Your task to perform on an android device: Open accessibility settings Image 0: 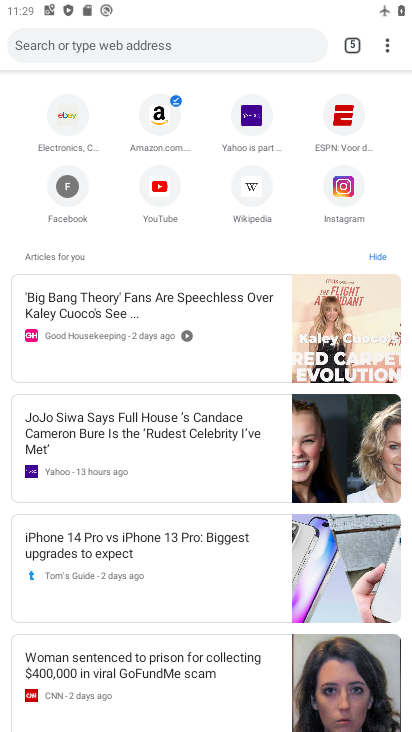
Step 0: press back button
Your task to perform on an android device: Open accessibility settings Image 1: 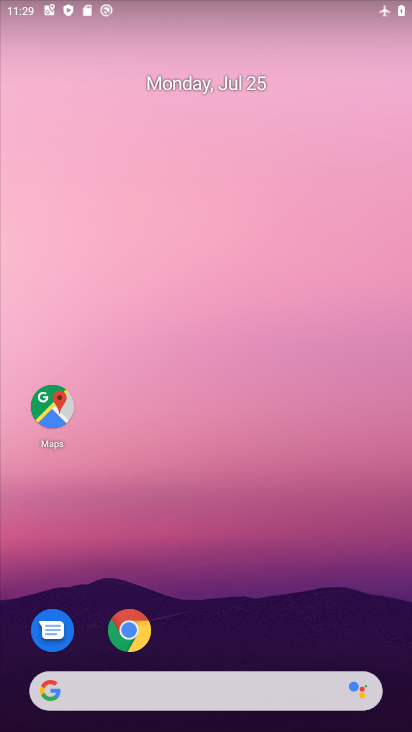
Step 1: drag from (215, 442) to (204, 237)
Your task to perform on an android device: Open accessibility settings Image 2: 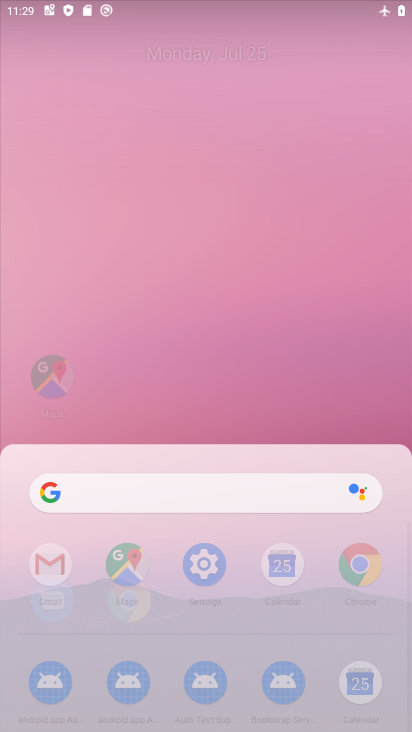
Step 2: click (223, 258)
Your task to perform on an android device: Open accessibility settings Image 3: 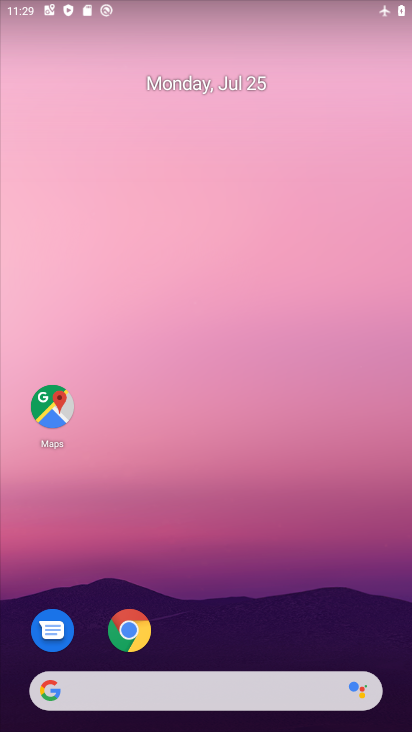
Step 3: drag from (222, 523) to (199, 119)
Your task to perform on an android device: Open accessibility settings Image 4: 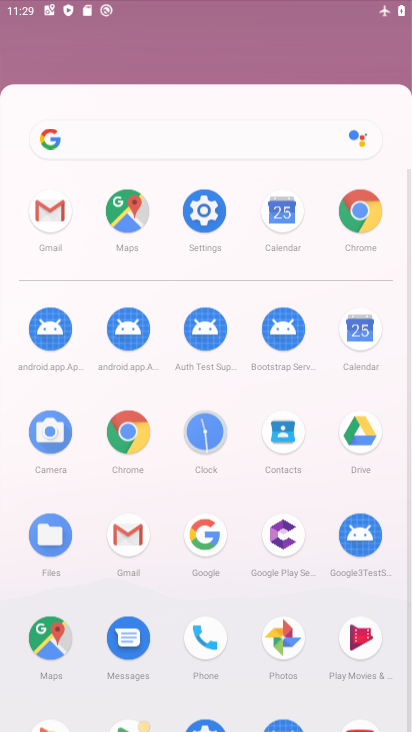
Step 4: drag from (209, 281) to (212, 204)
Your task to perform on an android device: Open accessibility settings Image 5: 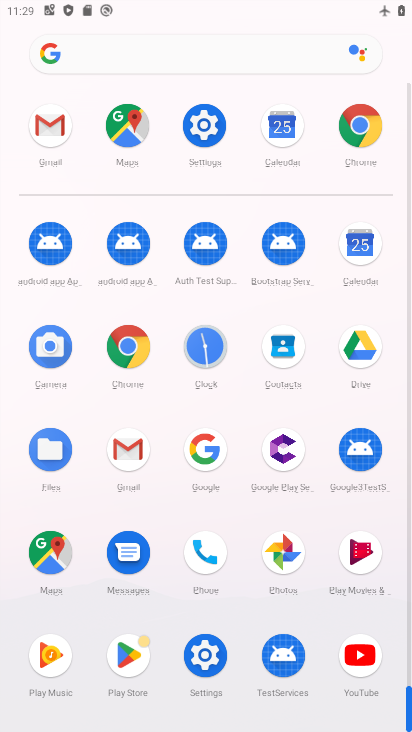
Step 5: drag from (217, 580) to (269, 353)
Your task to perform on an android device: Open accessibility settings Image 6: 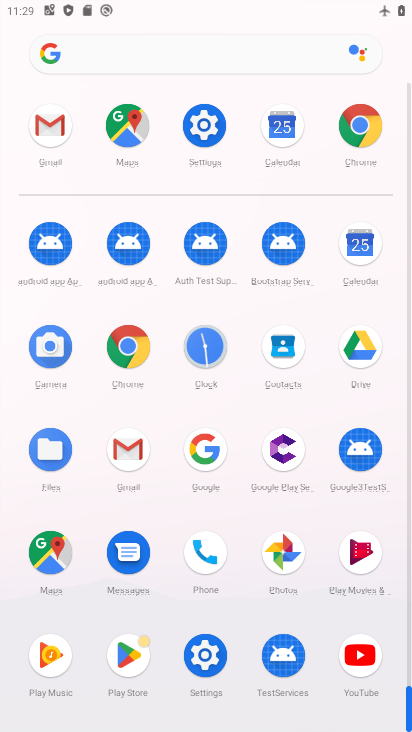
Step 6: click (199, 145)
Your task to perform on an android device: Open accessibility settings Image 7: 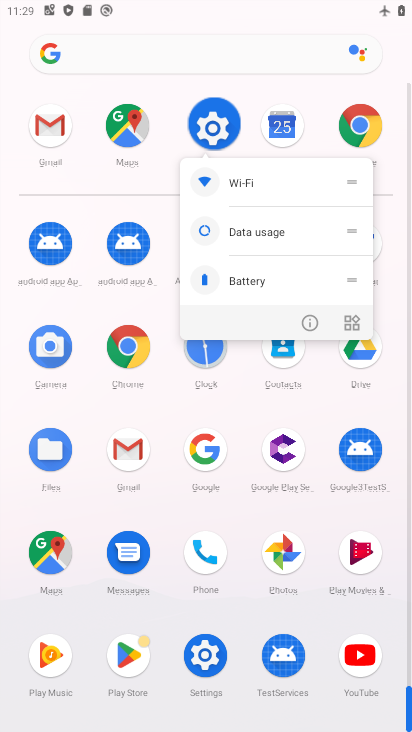
Step 7: click (208, 143)
Your task to perform on an android device: Open accessibility settings Image 8: 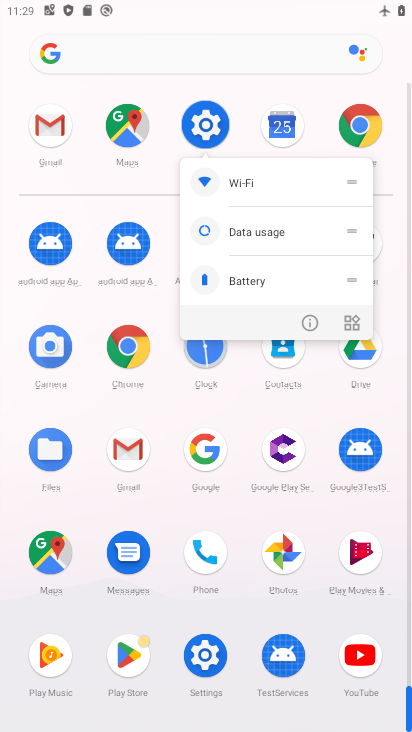
Step 8: click (208, 143)
Your task to perform on an android device: Open accessibility settings Image 9: 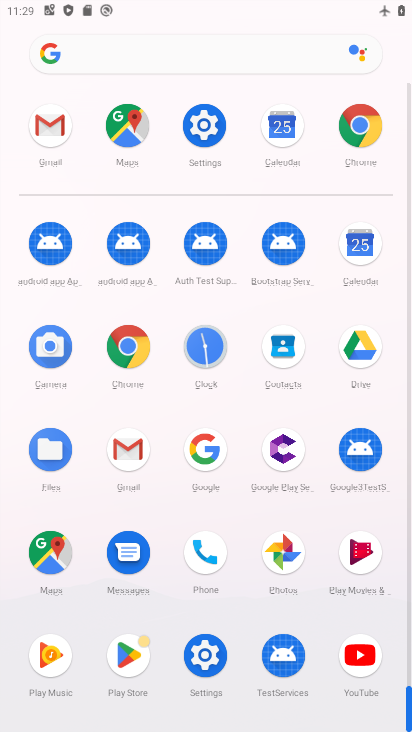
Step 9: click (208, 142)
Your task to perform on an android device: Open accessibility settings Image 10: 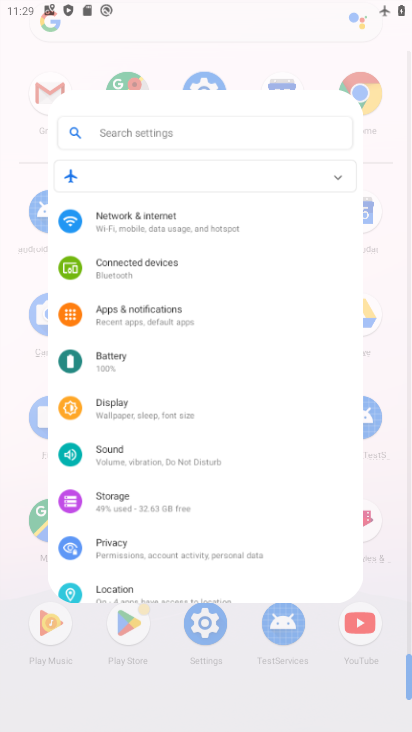
Step 10: click (210, 140)
Your task to perform on an android device: Open accessibility settings Image 11: 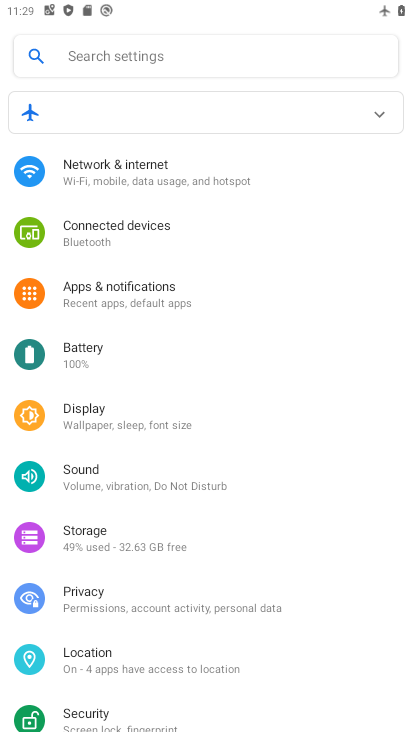
Step 11: drag from (172, 568) to (174, 130)
Your task to perform on an android device: Open accessibility settings Image 12: 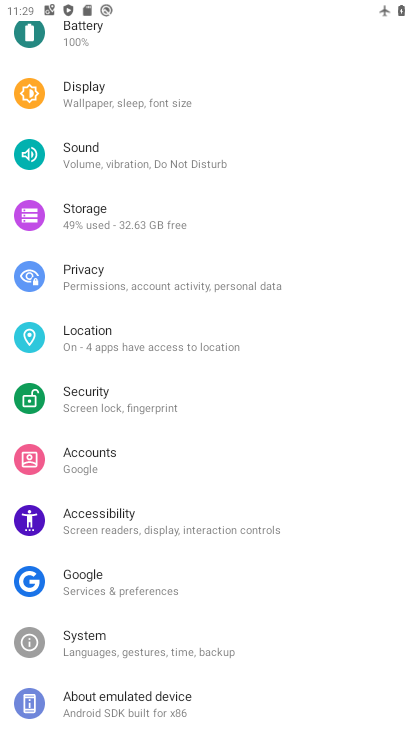
Step 12: drag from (183, 456) to (183, 191)
Your task to perform on an android device: Open accessibility settings Image 13: 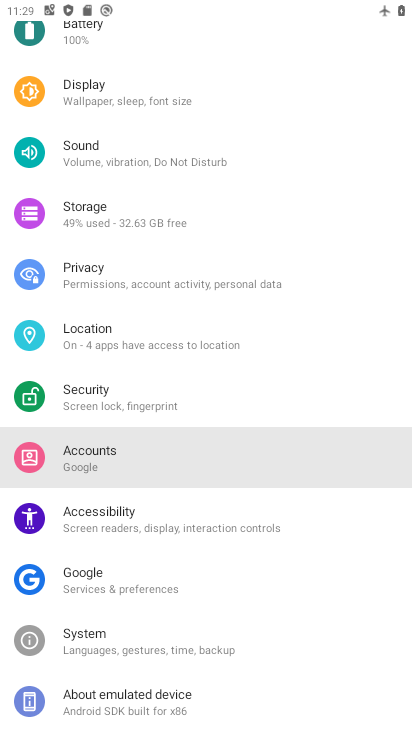
Step 13: drag from (226, 379) to (220, 259)
Your task to perform on an android device: Open accessibility settings Image 14: 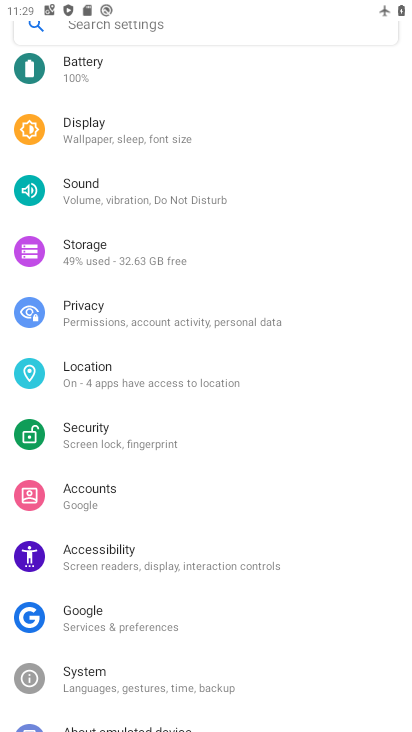
Step 14: click (119, 704)
Your task to perform on an android device: Open accessibility settings Image 15: 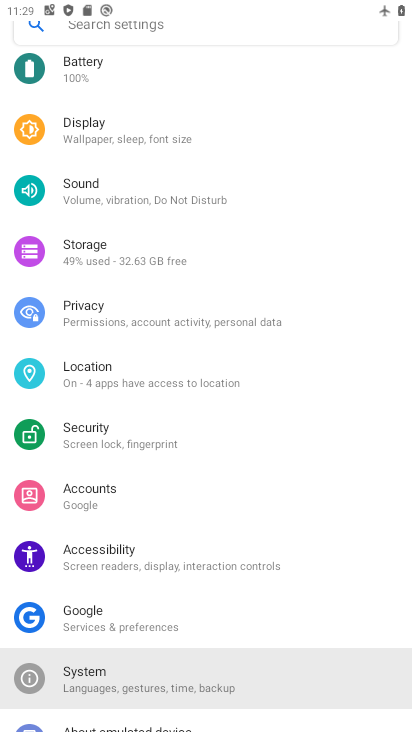
Step 15: drag from (121, 701) to (123, 227)
Your task to perform on an android device: Open accessibility settings Image 16: 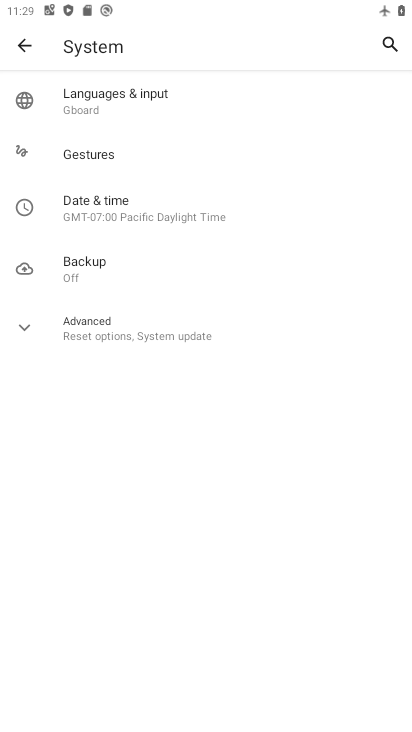
Step 16: drag from (164, 514) to (164, 220)
Your task to perform on an android device: Open accessibility settings Image 17: 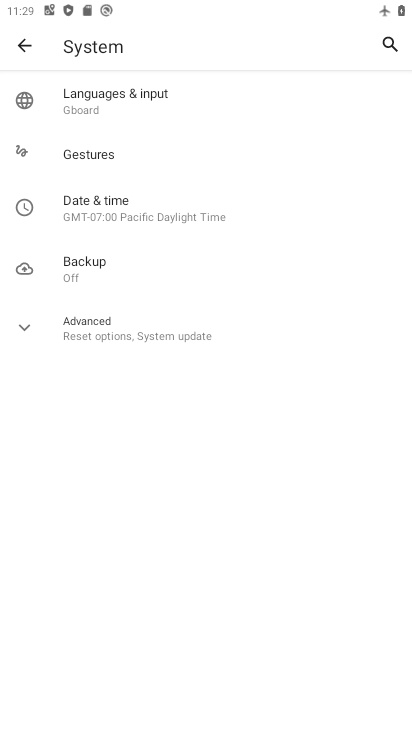
Step 17: click (22, 53)
Your task to perform on an android device: Open accessibility settings Image 18: 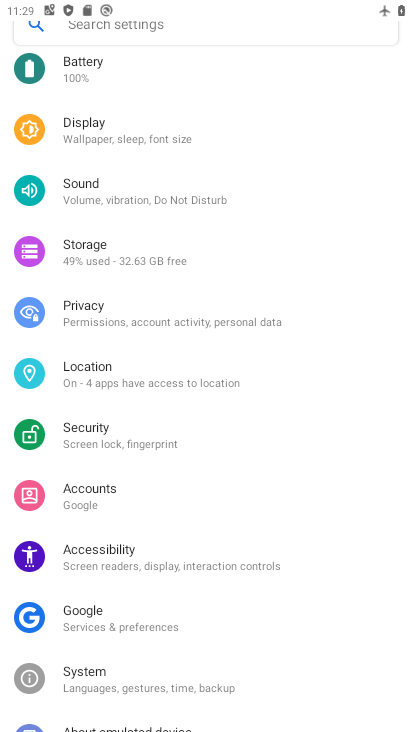
Step 18: click (123, 218)
Your task to perform on an android device: Open accessibility settings Image 19: 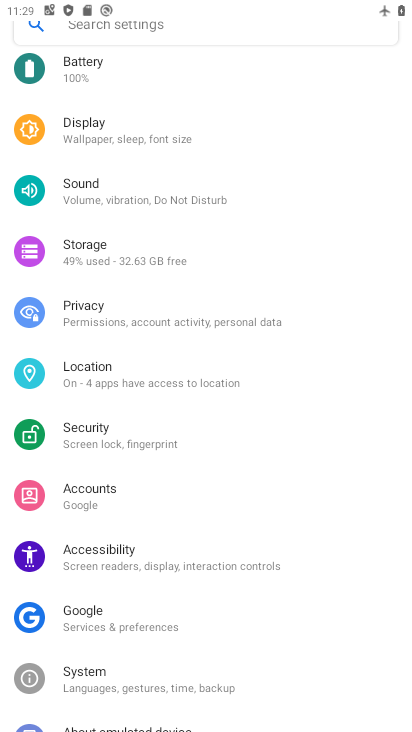
Step 19: drag from (188, 527) to (198, 198)
Your task to perform on an android device: Open accessibility settings Image 20: 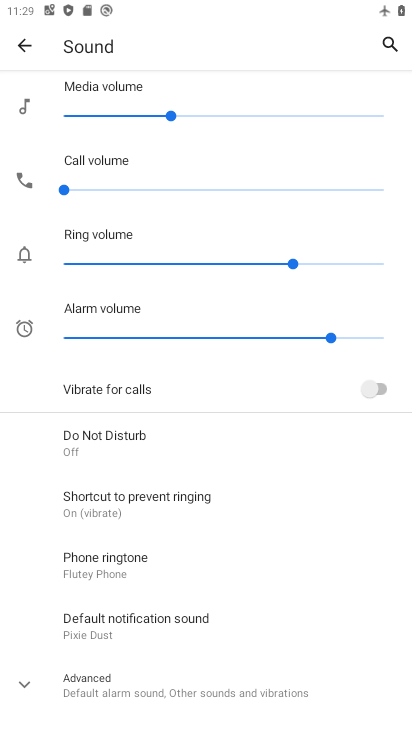
Step 20: drag from (138, 581) to (138, 186)
Your task to perform on an android device: Open accessibility settings Image 21: 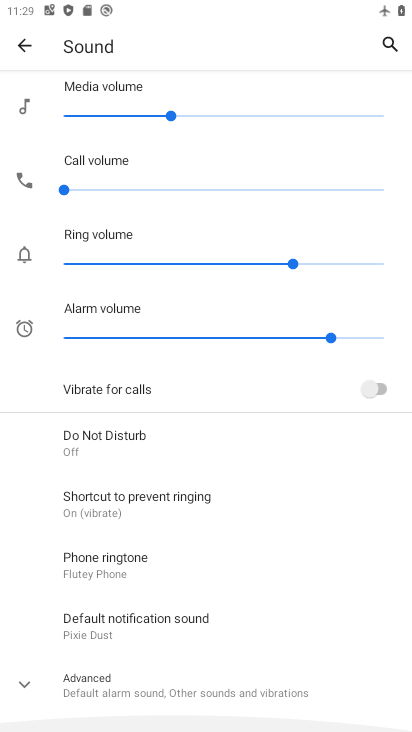
Step 21: drag from (130, 541) to (126, 261)
Your task to perform on an android device: Open accessibility settings Image 22: 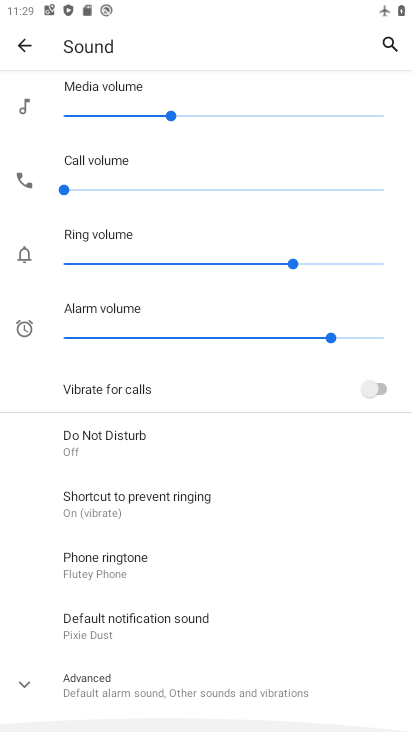
Step 22: click (30, 49)
Your task to perform on an android device: Open accessibility settings Image 23: 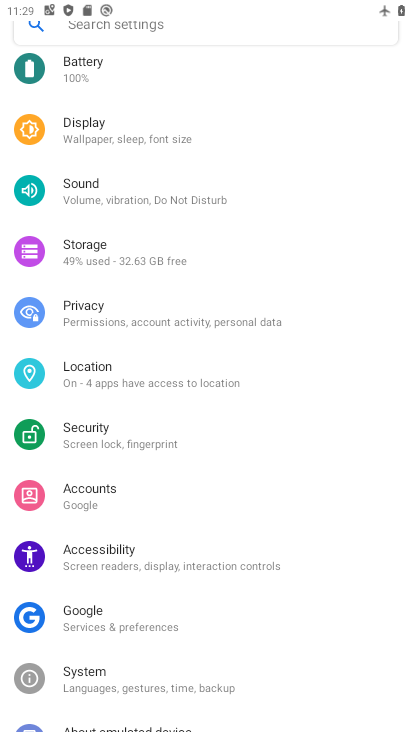
Step 23: drag from (214, 547) to (210, 119)
Your task to perform on an android device: Open accessibility settings Image 24: 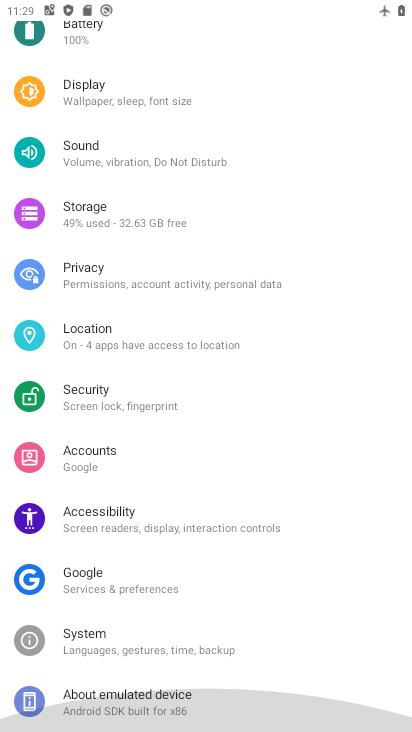
Step 24: drag from (207, 548) to (237, 207)
Your task to perform on an android device: Open accessibility settings Image 25: 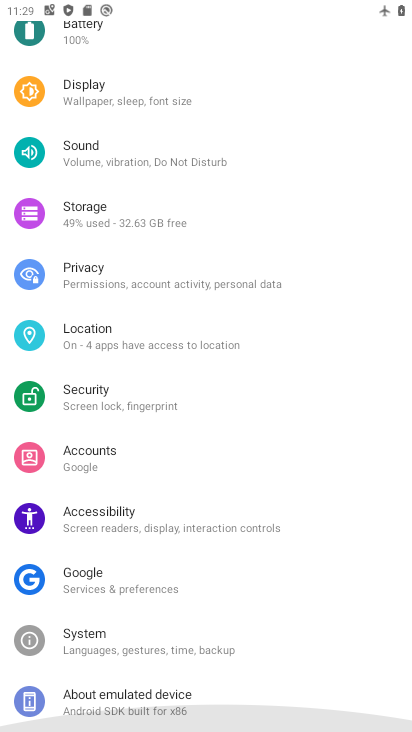
Step 25: drag from (283, 582) to (315, 185)
Your task to perform on an android device: Open accessibility settings Image 26: 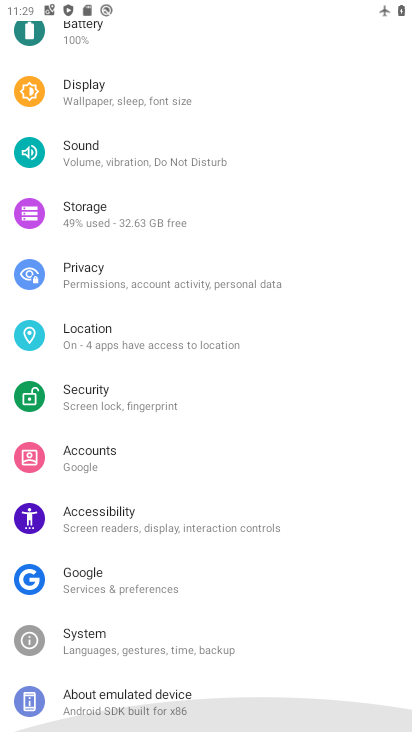
Step 26: drag from (244, 550) to (254, 254)
Your task to perform on an android device: Open accessibility settings Image 27: 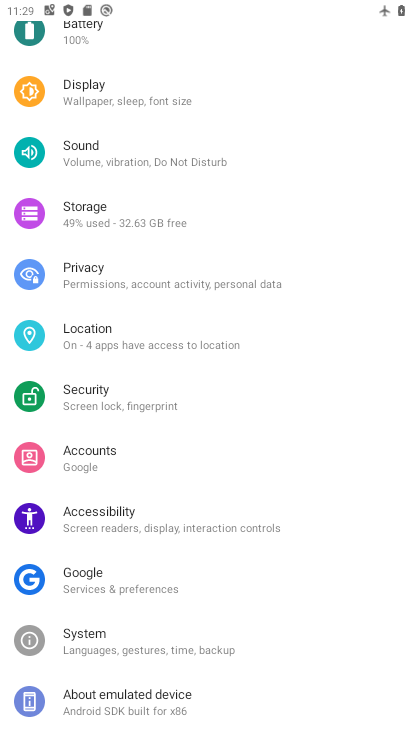
Step 27: drag from (98, 639) to (31, 135)
Your task to perform on an android device: Open accessibility settings Image 28: 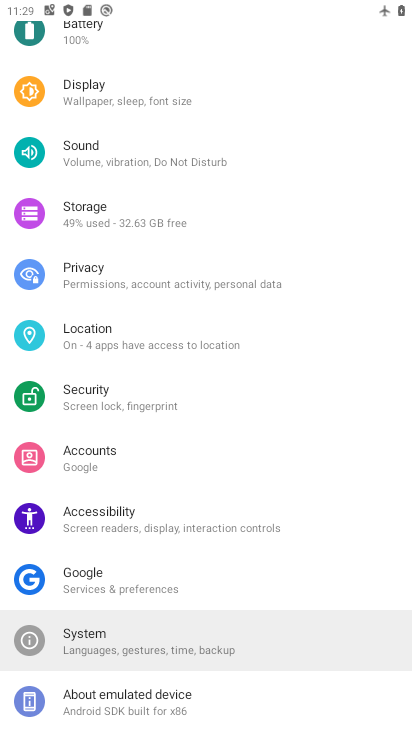
Step 28: drag from (114, 582) to (121, 198)
Your task to perform on an android device: Open accessibility settings Image 29: 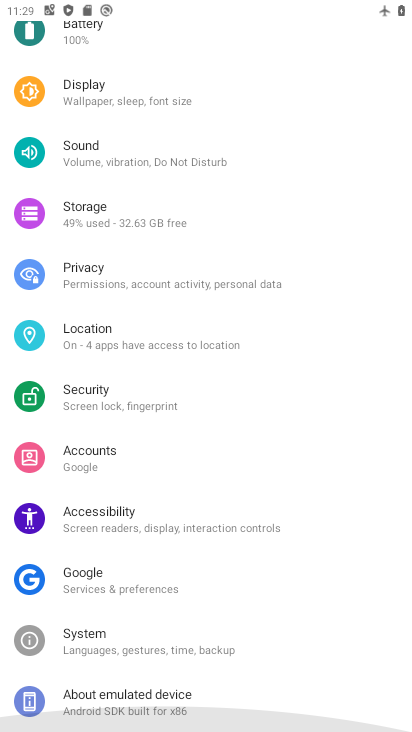
Step 29: click (149, 706)
Your task to perform on an android device: Open accessibility settings Image 30: 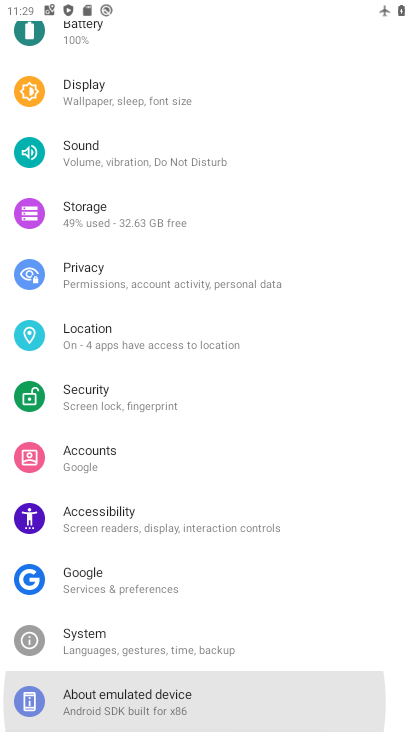
Step 30: click (118, 714)
Your task to perform on an android device: Open accessibility settings Image 31: 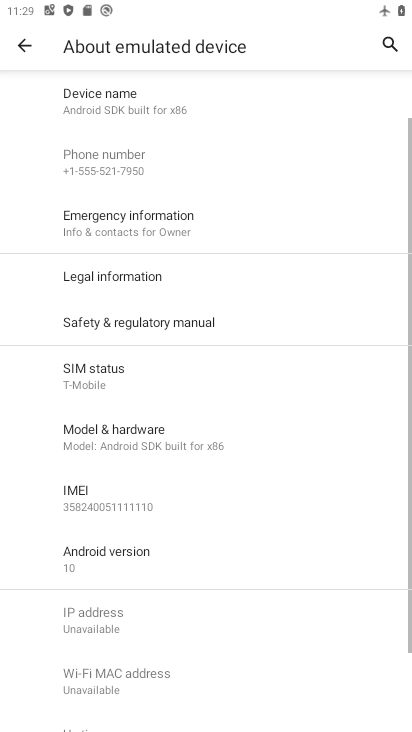
Step 31: click (127, 694)
Your task to perform on an android device: Open accessibility settings Image 32: 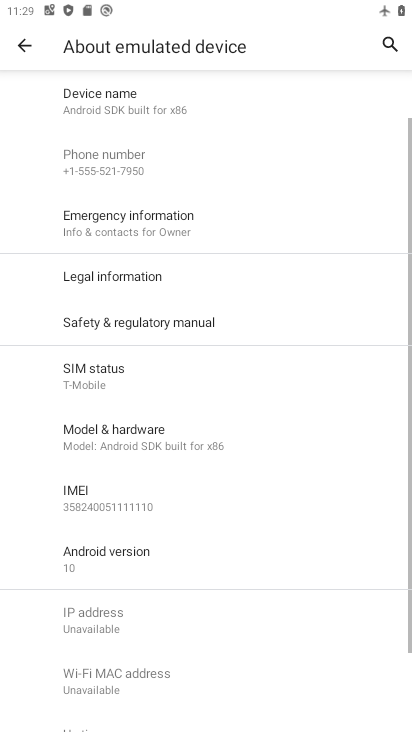
Step 32: click (127, 694)
Your task to perform on an android device: Open accessibility settings Image 33: 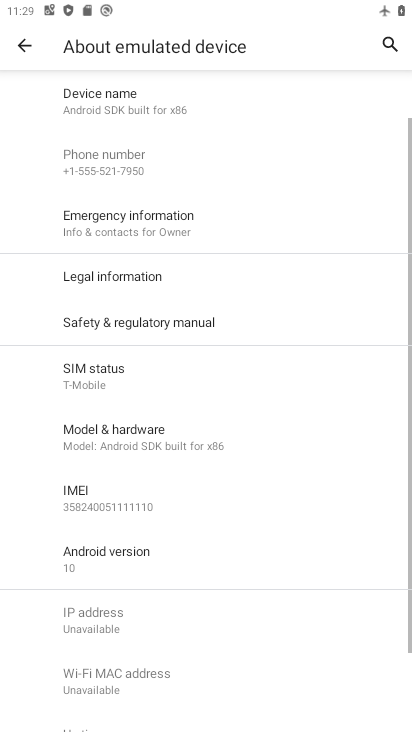
Step 33: task complete